Your task to perform on an android device: open sync settings in chrome Image 0: 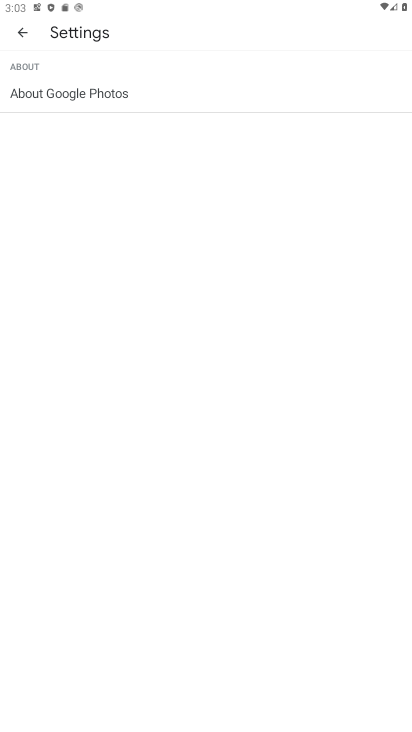
Step 0: press home button
Your task to perform on an android device: open sync settings in chrome Image 1: 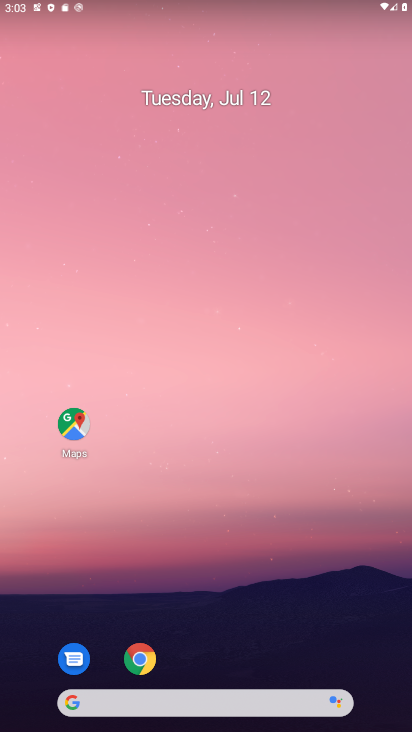
Step 1: click (194, 728)
Your task to perform on an android device: open sync settings in chrome Image 2: 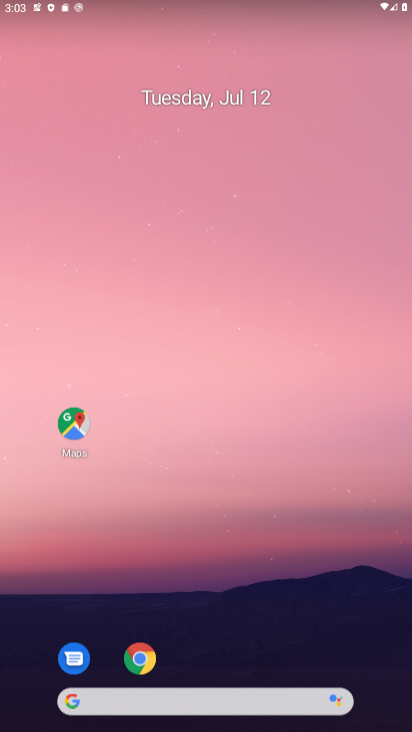
Step 2: click (194, 212)
Your task to perform on an android device: open sync settings in chrome Image 3: 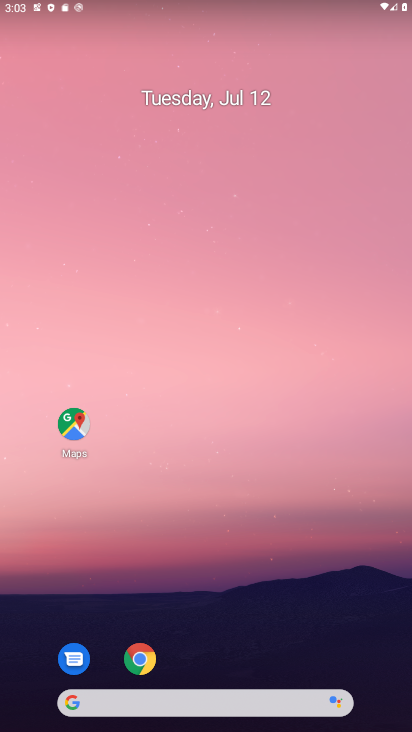
Step 3: click (139, 660)
Your task to perform on an android device: open sync settings in chrome Image 4: 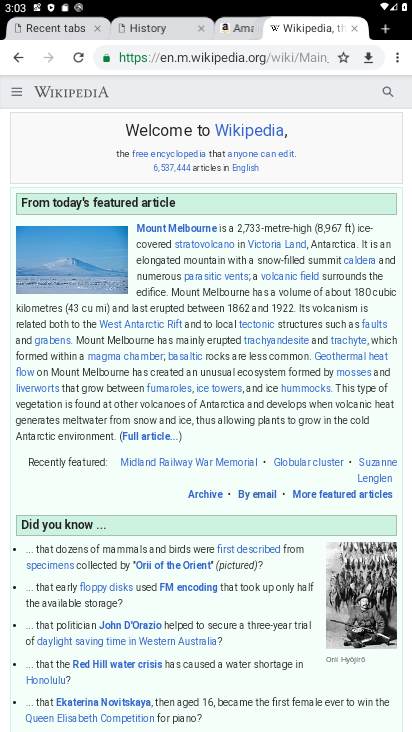
Step 4: click (399, 60)
Your task to perform on an android device: open sync settings in chrome Image 5: 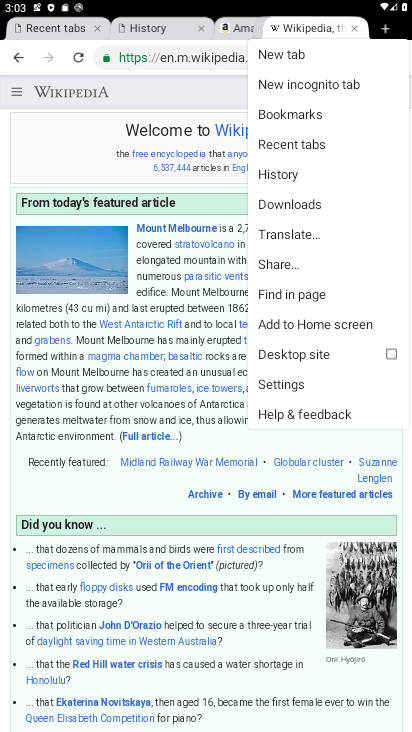
Step 5: click (281, 385)
Your task to perform on an android device: open sync settings in chrome Image 6: 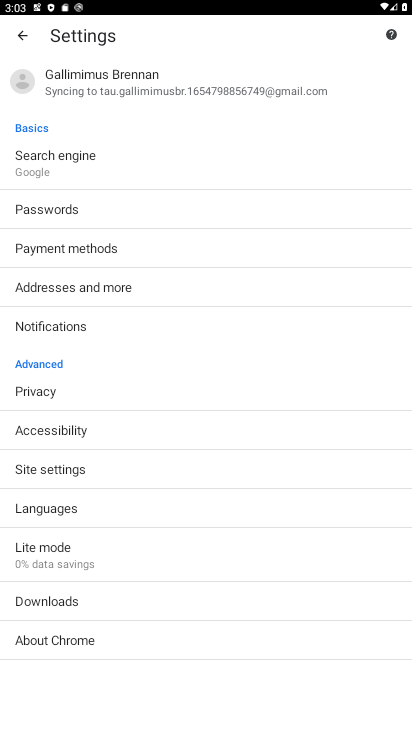
Step 6: click (31, 470)
Your task to perform on an android device: open sync settings in chrome Image 7: 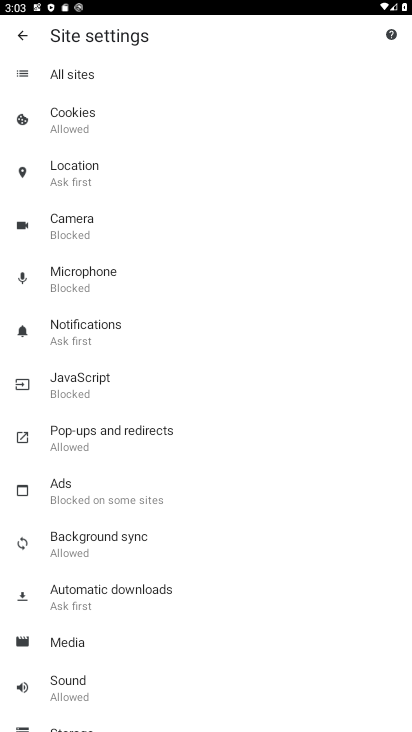
Step 7: click (75, 538)
Your task to perform on an android device: open sync settings in chrome Image 8: 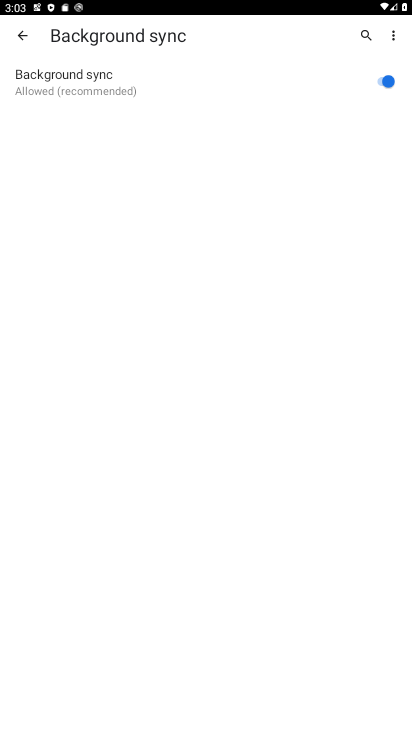
Step 8: task complete